Your task to perform on an android device: change keyboard looks Image 0: 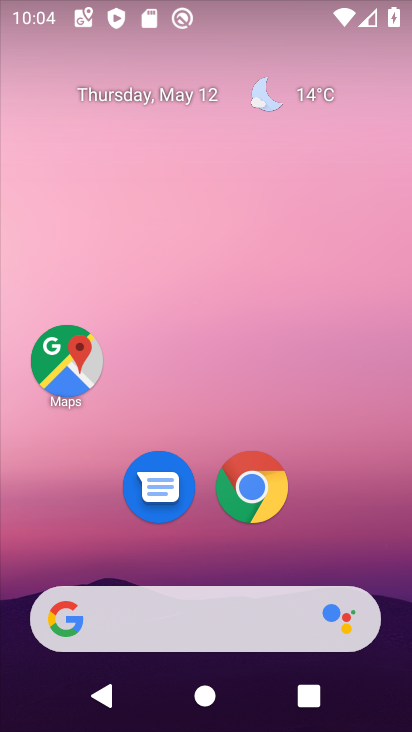
Step 0: press home button
Your task to perform on an android device: change keyboard looks Image 1: 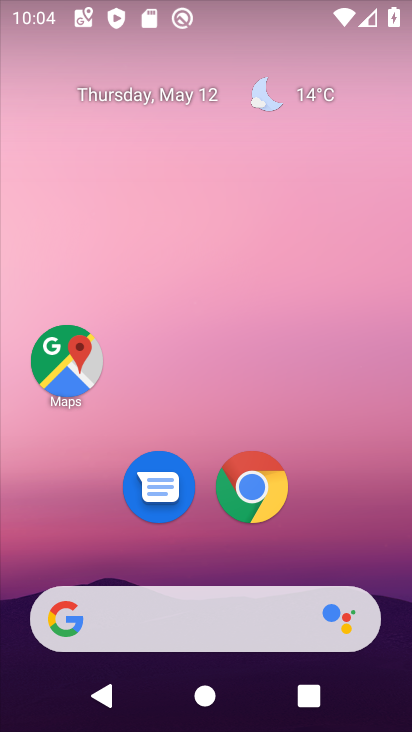
Step 1: drag from (46, 624) to (265, 193)
Your task to perform on an android device: change keyboard looks Image 2: 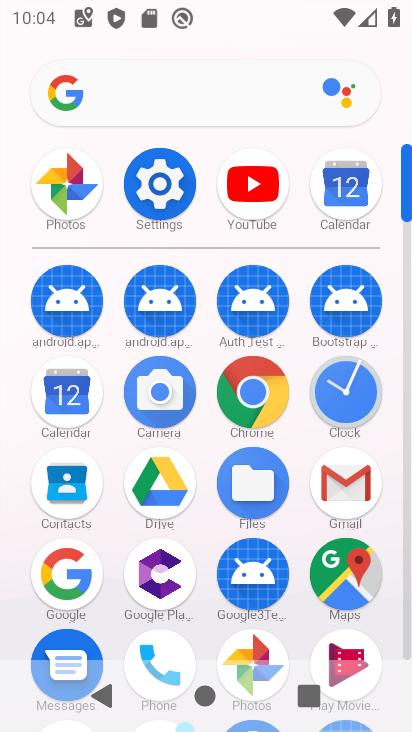
Step 2: click (172, 177)
Your task to perform on an android device: change keyboard looks Image 3: 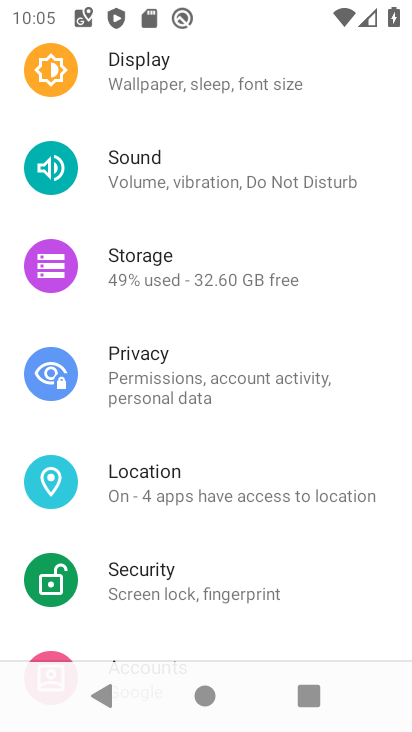
Step 3: drag from (84, 620) to (252, 73)
Your task to perform on an android device: change keyboard looks Image 4: 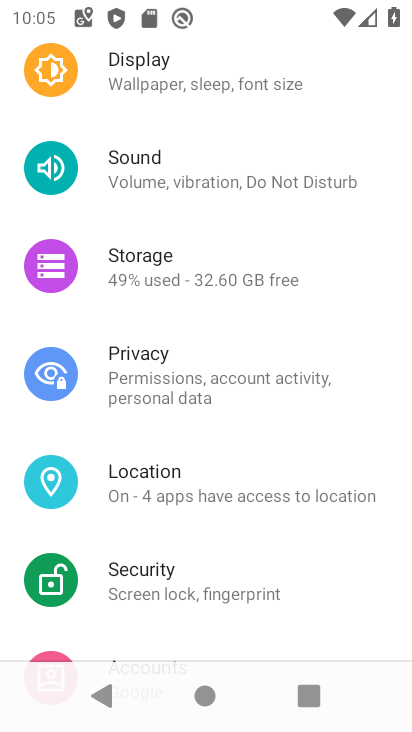
Step 4: drag from (3, 553) to (238, 129)
Your task to perform on an android device: change keyboard looks Image 5: 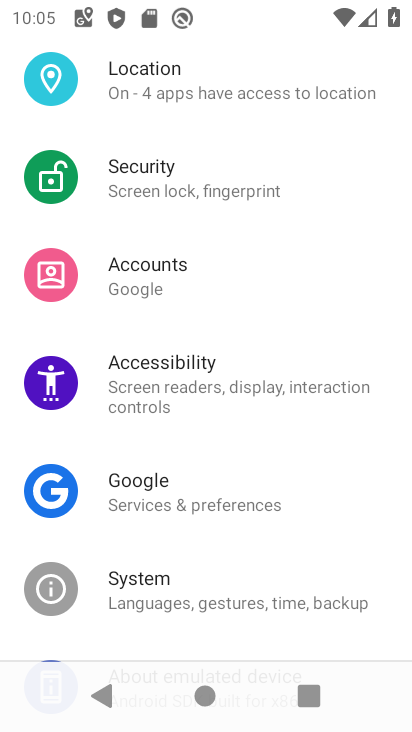
Step 5: click (188, 613)
Your task to perform on an android device: change keyboard looks Image 6: 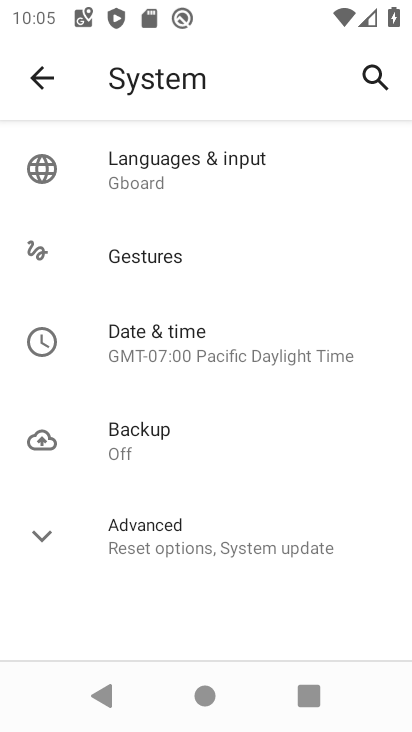
Step 6: click (119, 185)
Your task to perform on an android device: change keyboard looks Image 7: 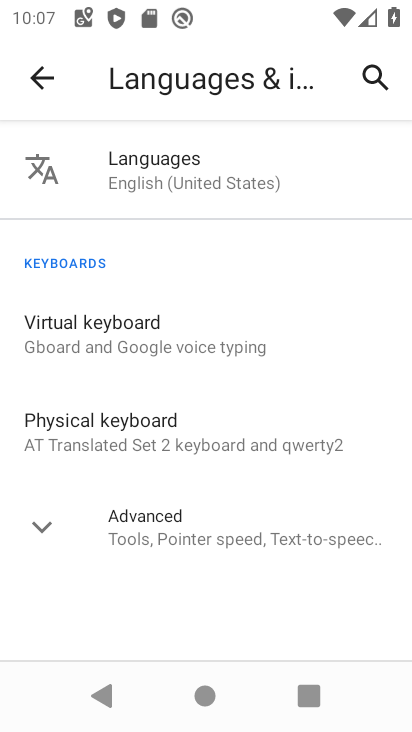
Step 7: click (179, 346)
Your task to perform on an android device: change keyboard looks Image 8: 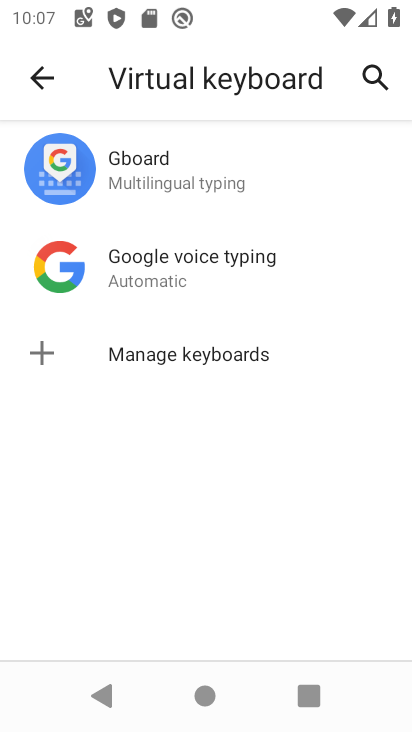
Step 8: click (140, 196)
Your task to perform on an android device: change keyboard looks Image 9: 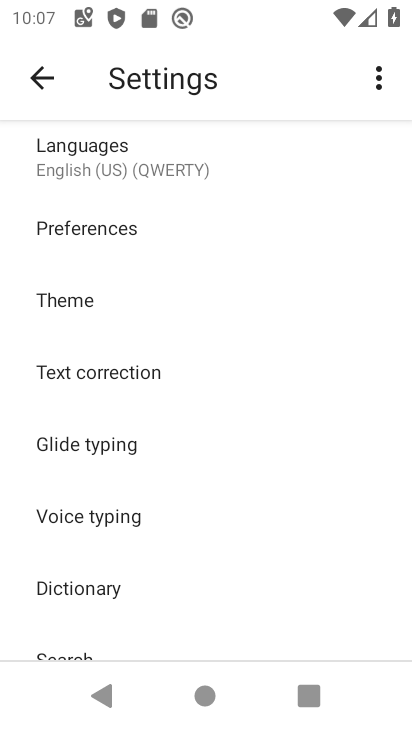
Step 9: click (262, 197)
Your task to perform on an android device: change keyboard looks Image 10: 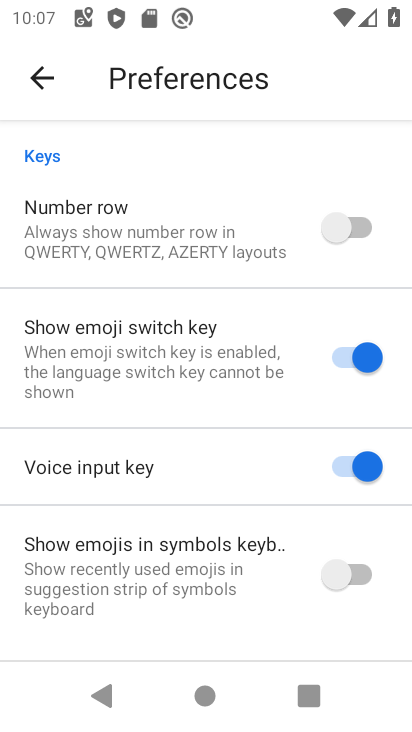
Step 10: task complete